Your task to perform on an android device: turn on the 12-hour format for clock Image 0: 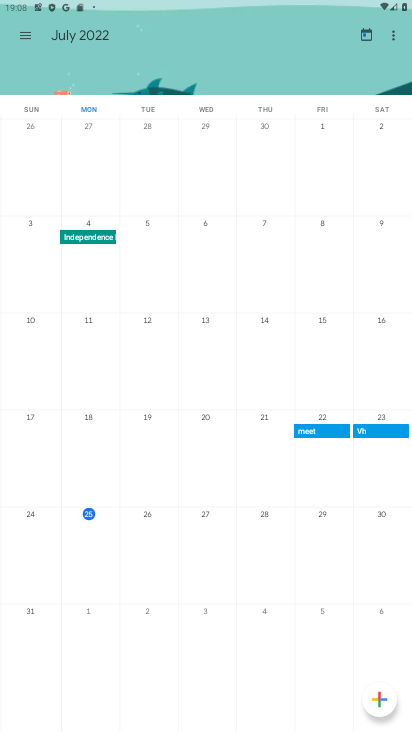
Step 0: press home button
Your task to perform on an android device: turn on the 12-hour format for clock Image 1: 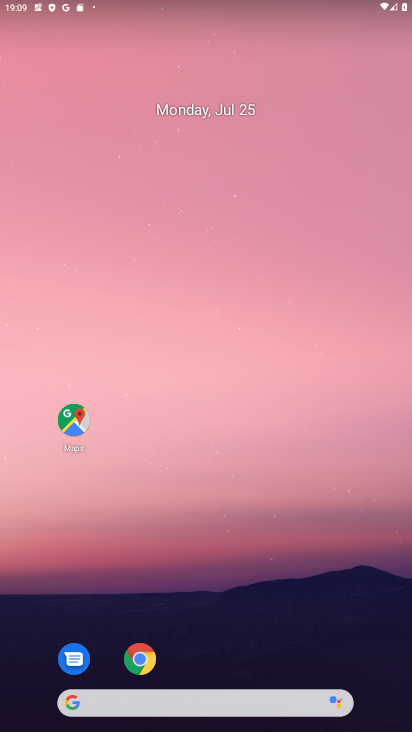
Step 1: drag from (213, 658) to (207, 306)
Your task to perform on an android device: turn on the 12-hour format for clock Image 2: 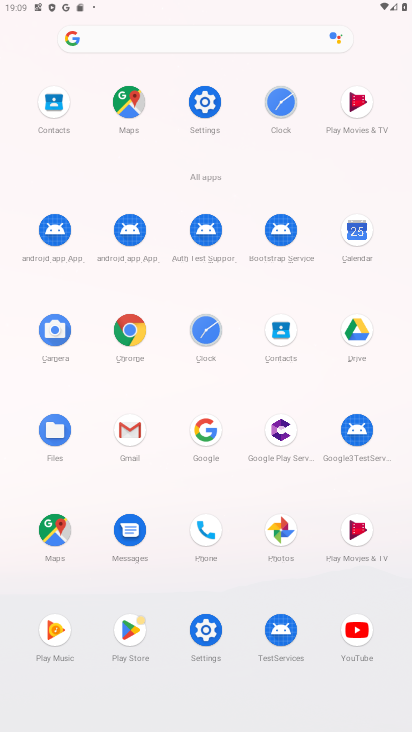
Step 2: click (205, 336)
Your task to perform on an android device: turn on the 12-hour format for clock Image 3: 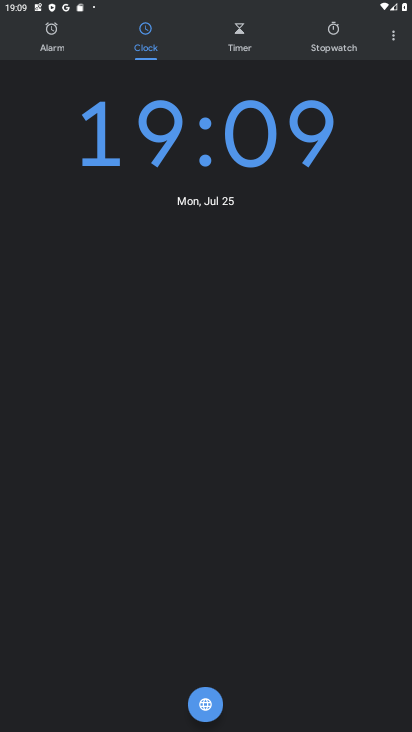
Step 3: click (395, 40)
Your task to perform on an android device: turn on the 12-hour format for clock Image 4: 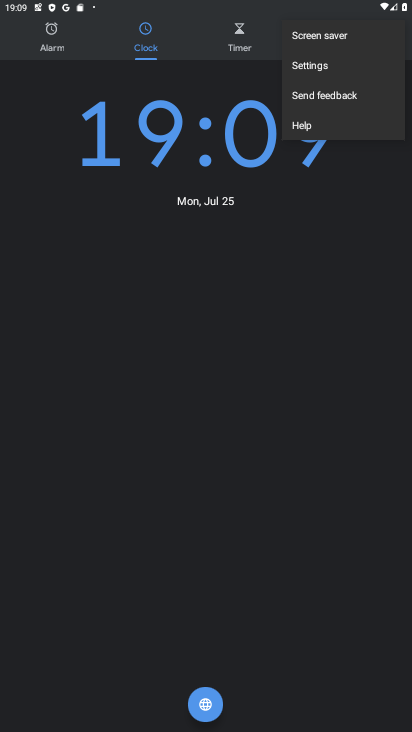
Step 4: click (316, 63)
Your task to perform on an android device: turn on the 12-hour format for clock Image 5: 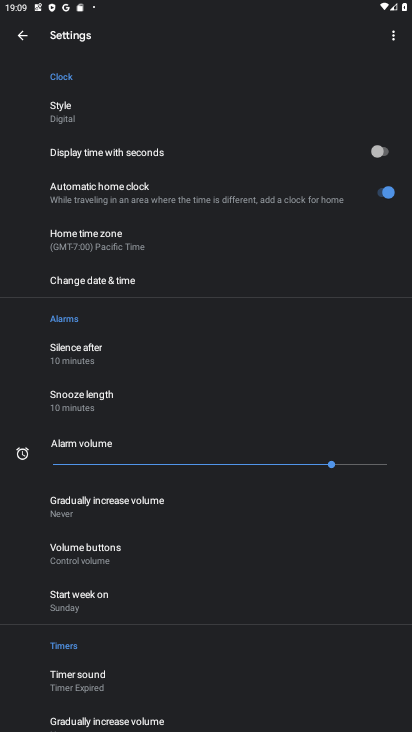
Step 5: click (94, 283)
Your task to perform on an android device: turn on the 12-hour format for clock Image 6: 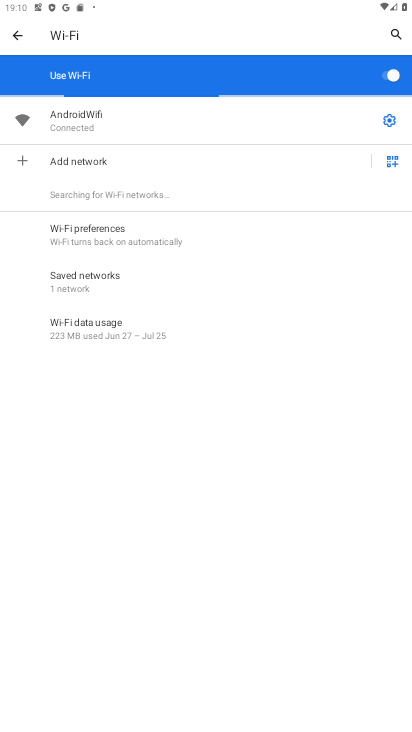
Step 6: click (20, 38)
Your task to perform on an android device: turn on the 12-hour format for clock Image 7: 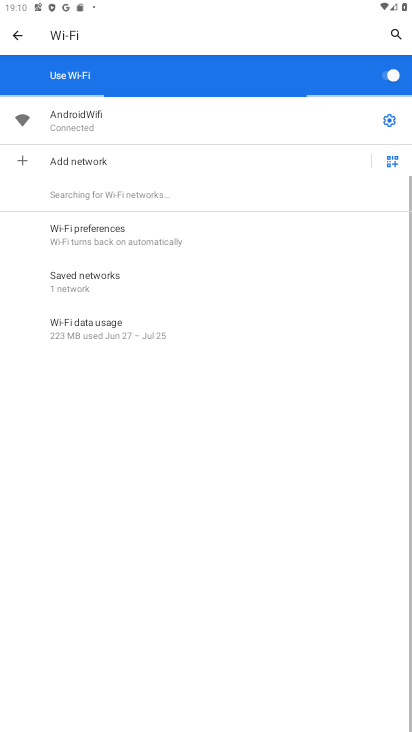
Step 7: click (20, 38)
Your task to perform on an android device: turn on the 12-hour format for clock Image 8: 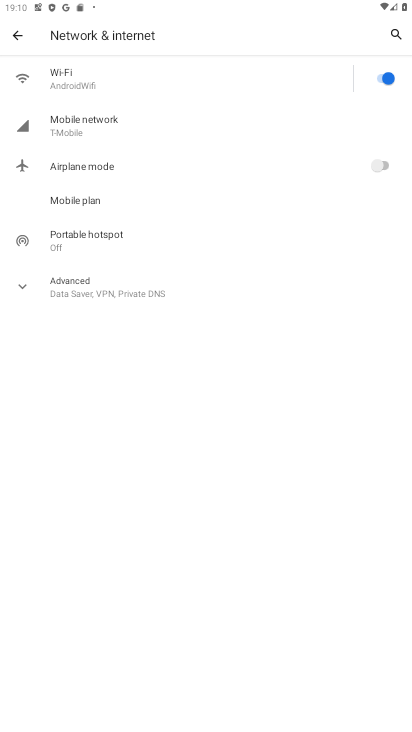
Step 8: click (20, 38)
Your task to perform on an android device: turn on the 12-hour format for clock Image 9: 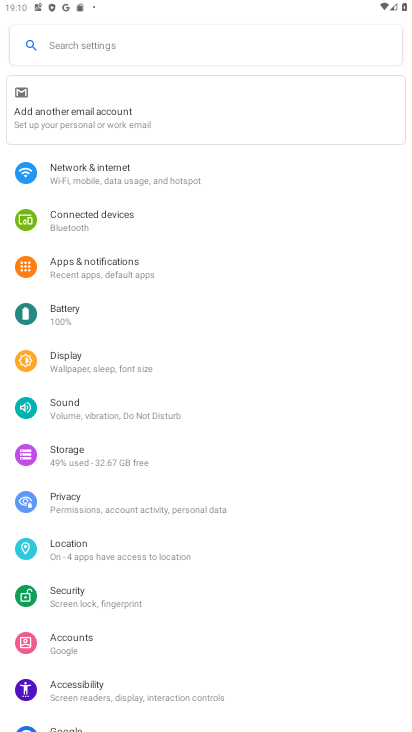
Step 9: press back button
Your task to perform on an android device: turn on the 12-hour format for clock Image 10: 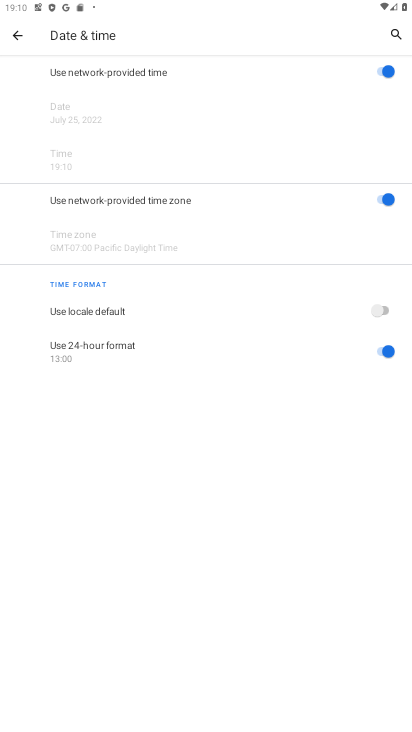
Step 10: click (381, 351)
Your task to perform on an android device: turn on the 12-hour format for clock Image 11: 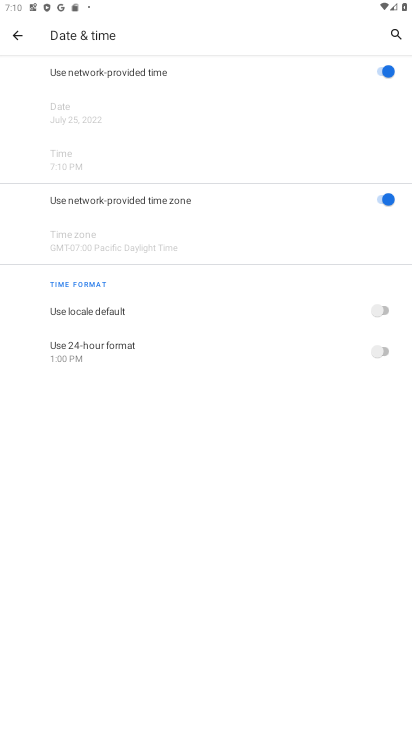
Step 11: click (388, 312)
Your task to perform on an android device: turn on the 12-hour format for clock Image 12: 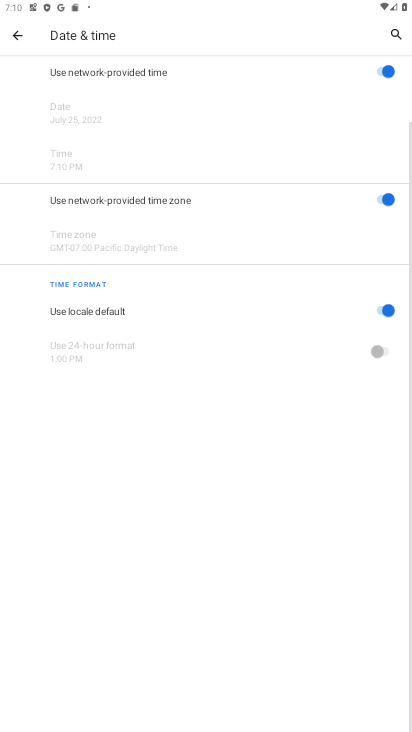
Step 12: task complete